Your task to perform on an android device: Open internet settings Image 0: 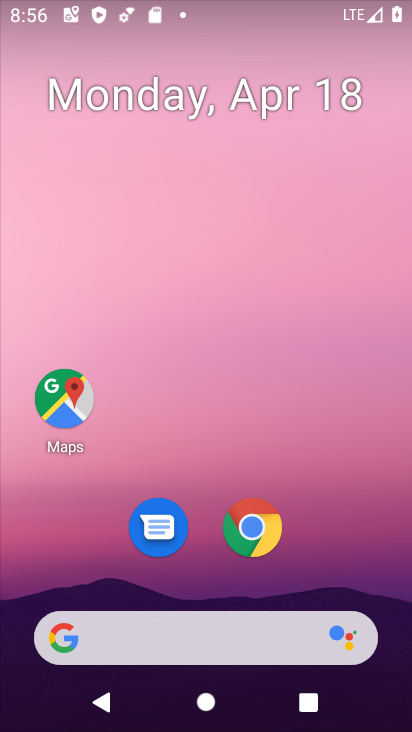
Step 0: drag from (313, 467) to (263, 13)
Your task to perform on an android device: Open internet settings Image 1: 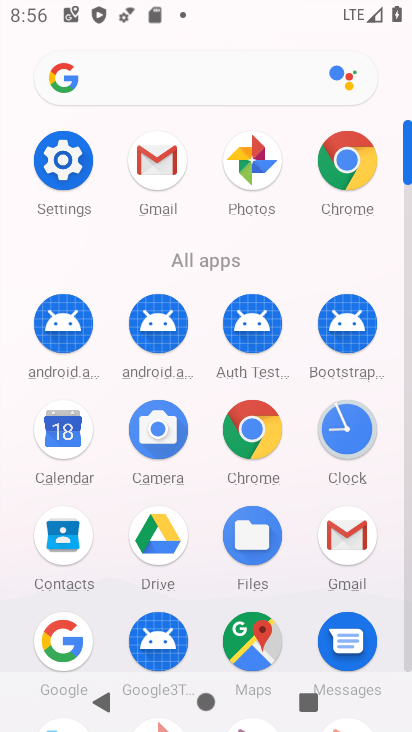
Step 1: drag from (14, 484) to (6, 214)
Your task to perform on an android device: Open internet settings Image 2: 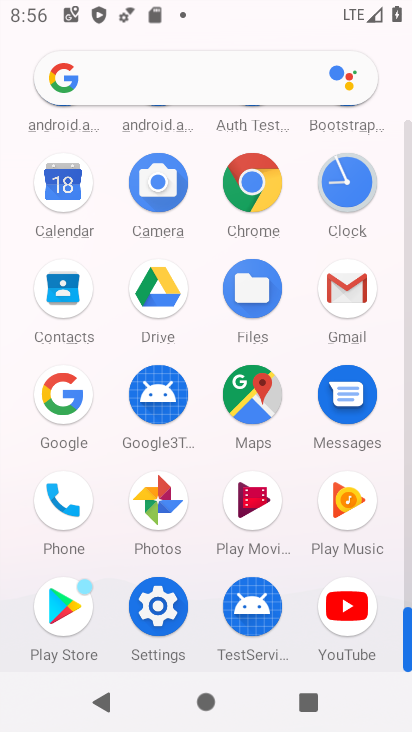
Step 2: click (155, 598)
Your task to perform on an android device: Open internet settings Image 3: 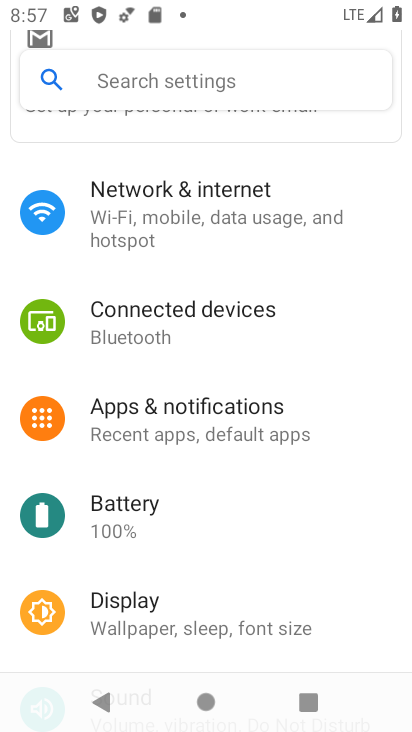
Step 3: click (222, 194)
Your task to perform on an android device: Open internet settings Image 4: 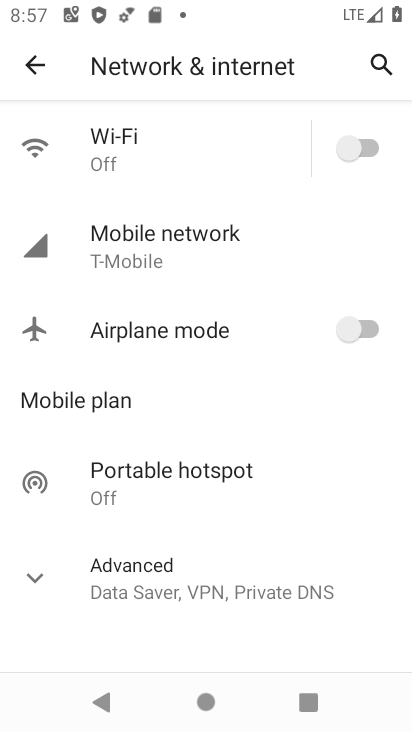
Step 4: drag from (228, 585) to (219, 170)
Your task to perform on an android device: Open internet settings Image 5: 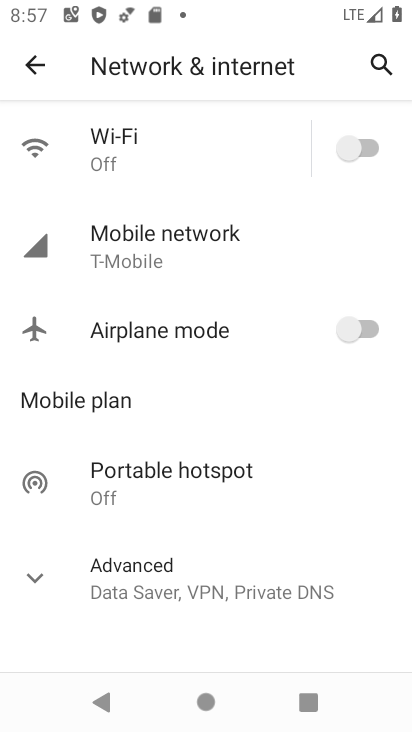
Step 5: click (39, 582)
Your task to perform on an android device: Open internet settings Image 6: 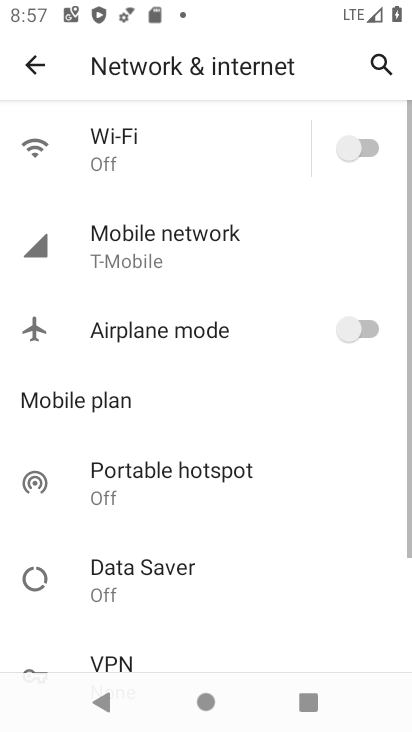
Step 6: task complete